Your task to perform on an android device: turn on translation in the chrome app Image 0: 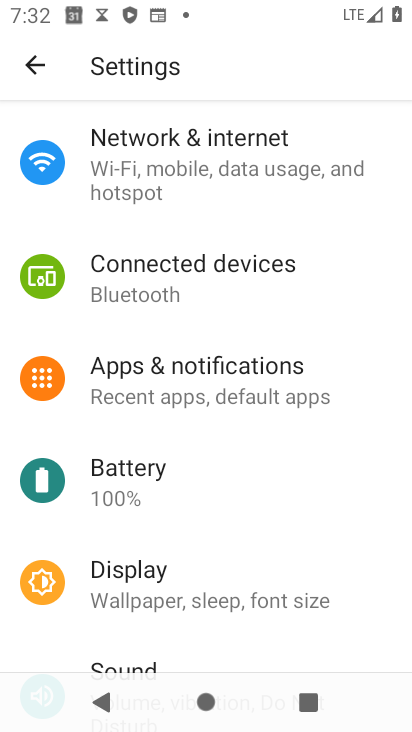
Step 0: press home button
Your task to perform on an android device: turn on translation in the chrome app Image 1: 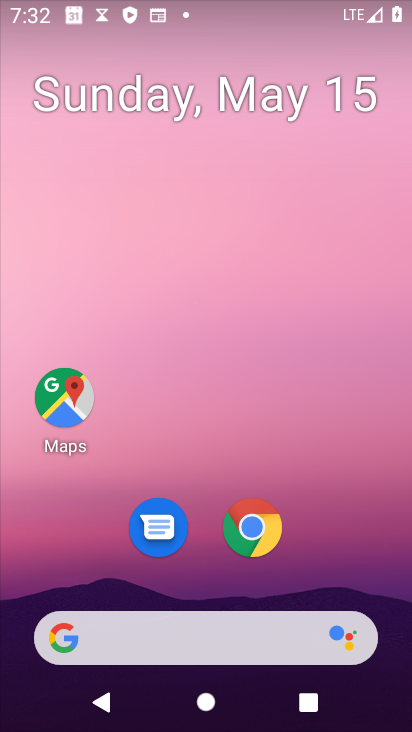
Step 1: drag from (340, 501) to (324, 38)
Your task to perform on an android device: turn on translation in the chrome app Image 2: 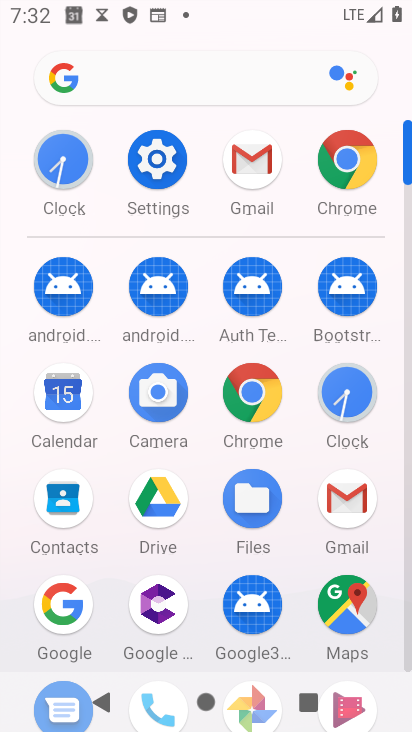
Step 2: click (357, 174)
Your task to perform on an android device: turn on translation in the chrome app Image 3: 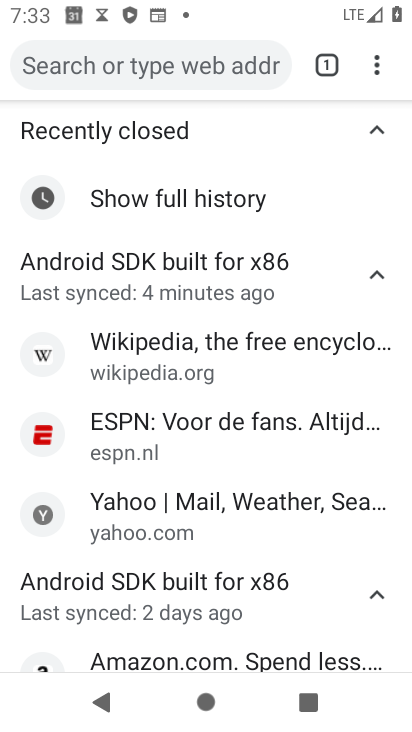
Step 3: drag from (374, 68) to (200, 543)
Your task to perform on an android device: turn on translation in the chrome app Image 4: 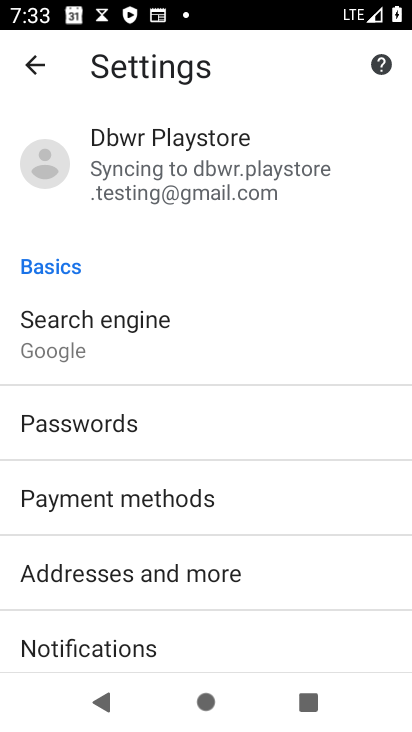
Step 4: drag from (205, 602) to (149, 225)
Your task to perform on an android device: turn on translation in the chrome app Image 5: 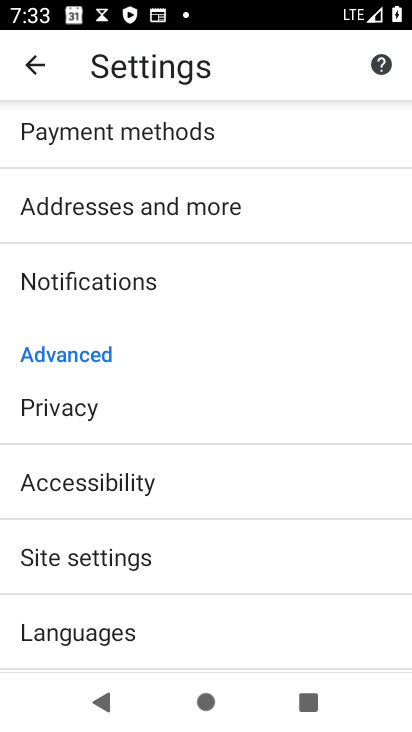
Step 5: drag from (202, 553) to (282, 248)
Your task to perform on an android device: turn on translation in the chrome app Image 6: 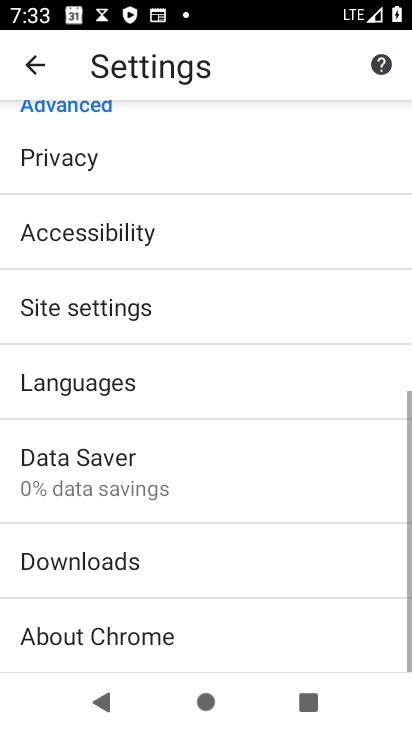
Step 6: drag from (256, 578) to (276, 237)
Your task to perform on an android device: turn on translation in the chrome app Image 7: 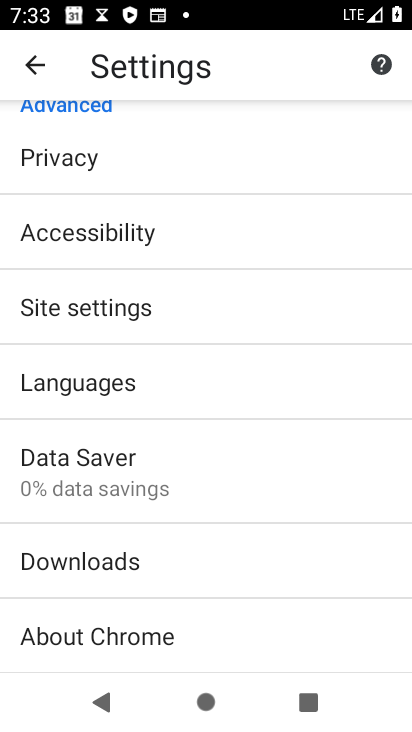
Step 7: click (83, 375)
Your task to perform on an android device: turn on translation in the chrome app Image 8: 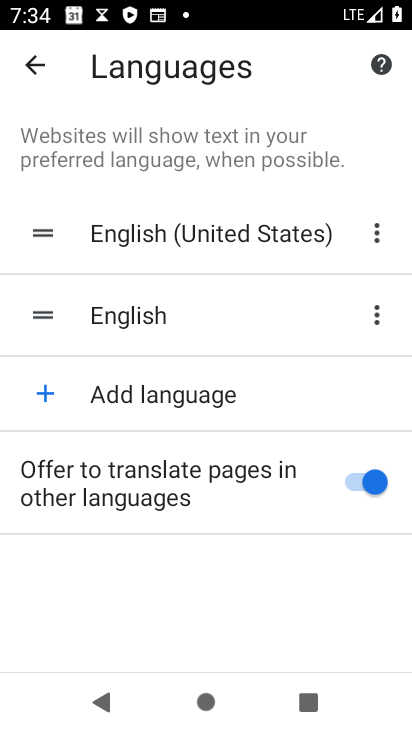
Step 8: task complete